Your task to perform on an android device: turn off improve location accuracy Image 0: 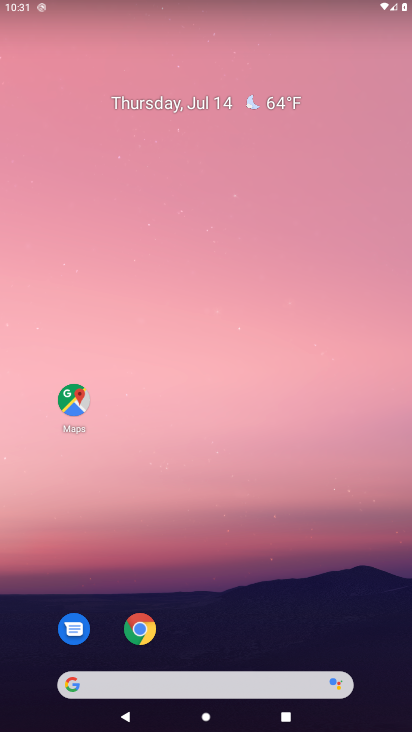
Step 0: press home button
Your task to perform on an android device: turn off improve location accuracy Image 1: 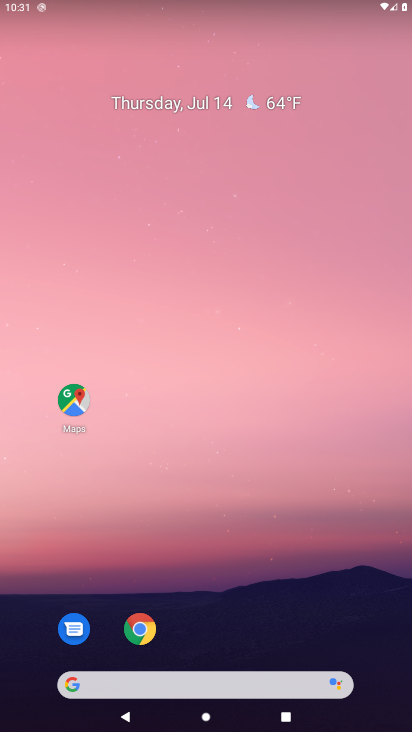
Step 1: drag from (221, 667) to (192, 326)
Your task to perform on an android device: turn off improve location accuracy Image 2: 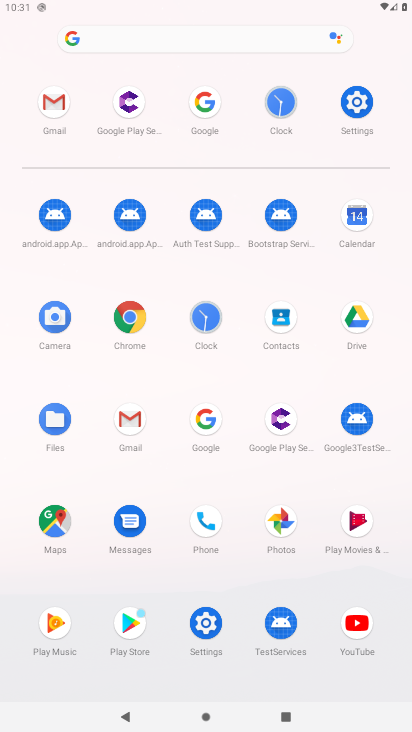
Step 2: click (355, 98)
Your task to perform on an android device: turn off improve location accuracy Image 3: 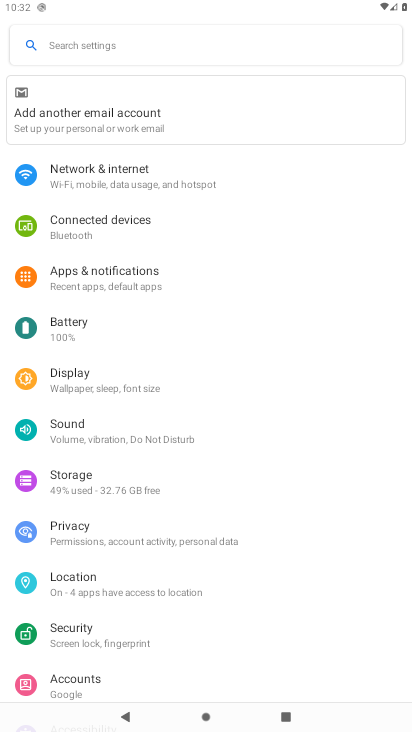
Step 3: click (68, 594)
Your task to perform on an android device: turn off improve location accuracy Image 4: 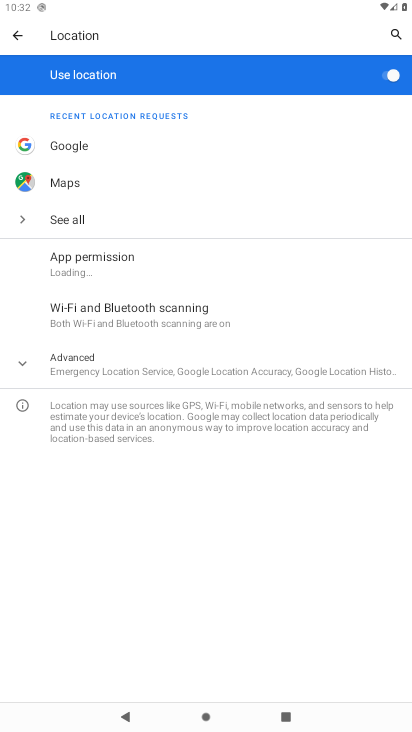
Step 4: click (120, 352)
Your task to perform on an android device: turn off improve location accuracy Image 5: 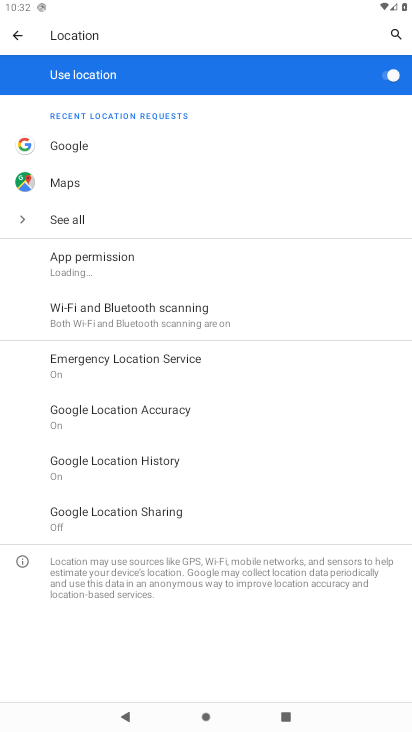
Step 5: click (152, 401)
Your task to perform on an android device: turn off improve location accuracy Image 6: 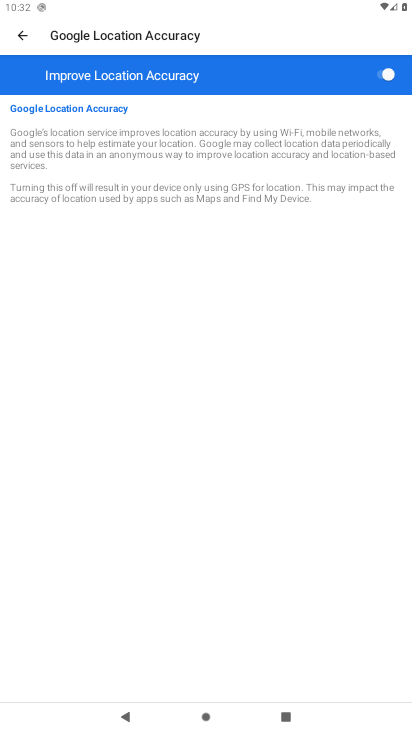
Step 6: click (381, 73)
Your task to perform on an android device: turn off improve location accuracy Image 7: 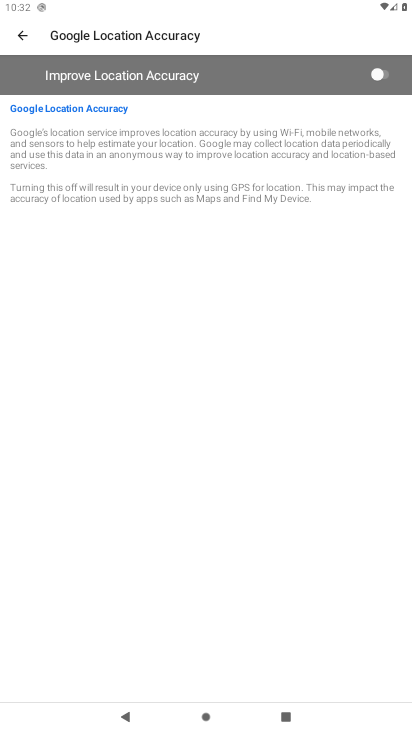
Step 7: task complete